Your task to perform on an android device: change the clock display to analog Image 0: 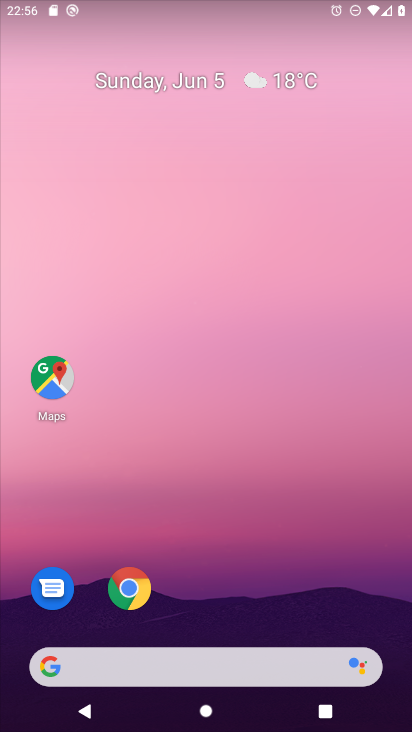
Step 0: drag from (366, 610) to (347, 73)
Your task to perform on an android device: change the clock display to analog Image 1: 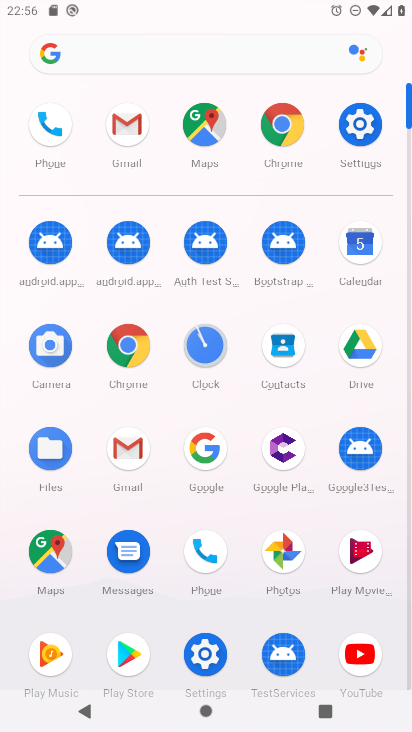
Step 1: click (210, 355)
Your task to perform on an android device: change the clock display to analog Image 2: 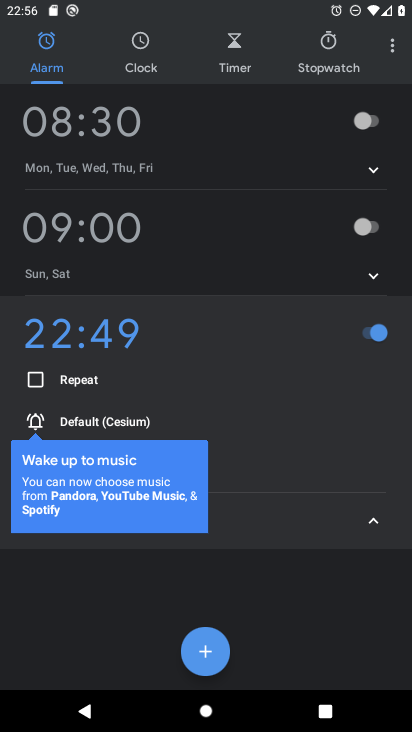
Step 2: click (391, 58)
Your task to perform on an android device: change the clock display to analog Image 3: 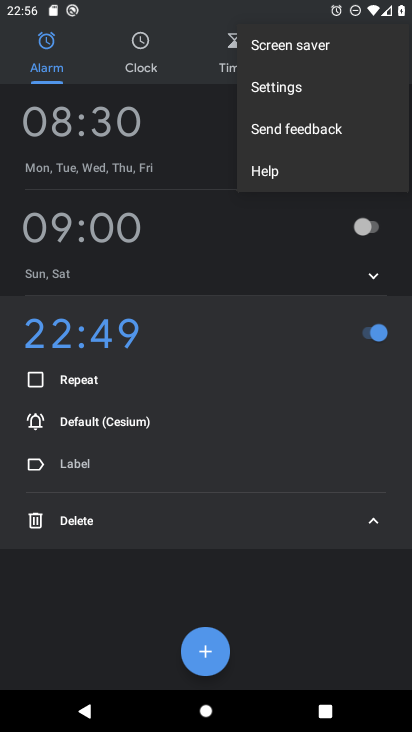
Step 3: click (291, 89)
Your task to perform on an android device: change the clock display to analog Image 4: 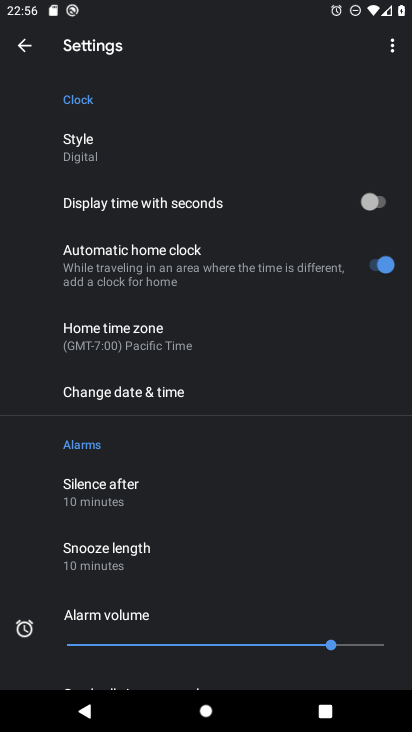
Step 4: drag from (254, 551) to (260, 369)
Your task to perform on an android device: change the clock display to analog Image 5: 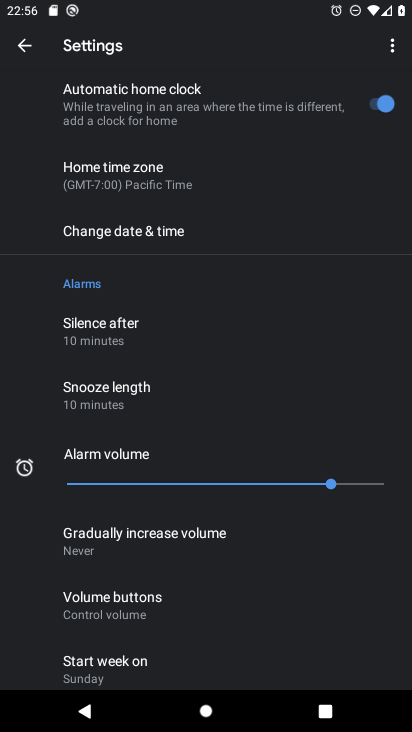
Step 5: drag from (304, 365) to (309, 201)
Your task to perform on an android device: change the clock display to analog Image 6: 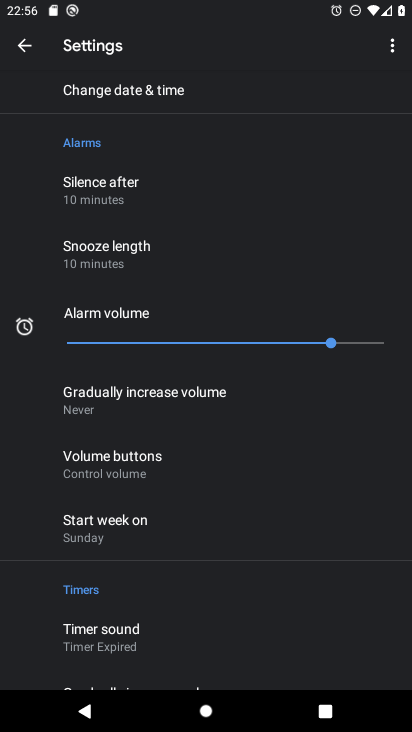
Step 6: drag from (301, 458) to (300, 309)
Your task to perform on an android device: change the clock display to analog Image 7: 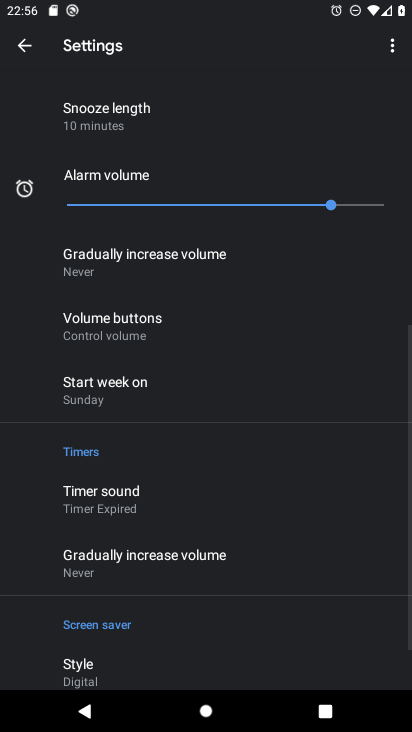
Step 7: drag from (309, 488) to (312, 311)
Your task to perform on an android device: change the clock display to analog Image 8: 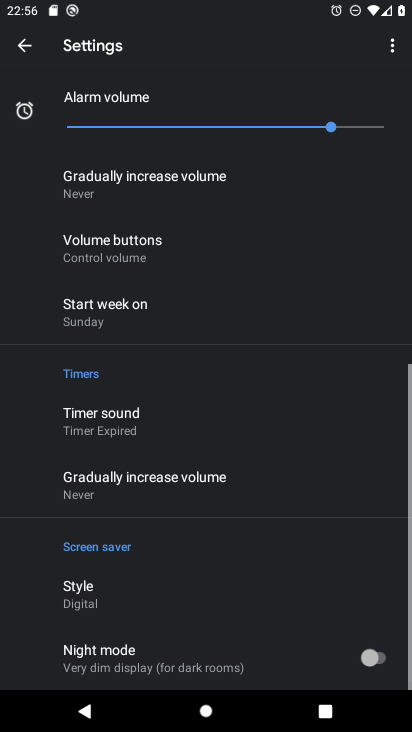
Step 8: drag from (324, 228) to (315, 364)
Your task to perform on an android device: change the clock display to analog Image 9: 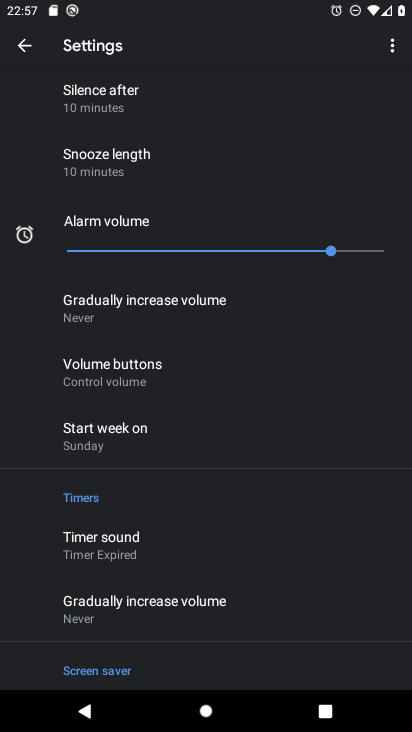
Step 9: drag from (317, 179) to (302, 304)
Your task to perform on an android device: change the clock display to analog Image 10: 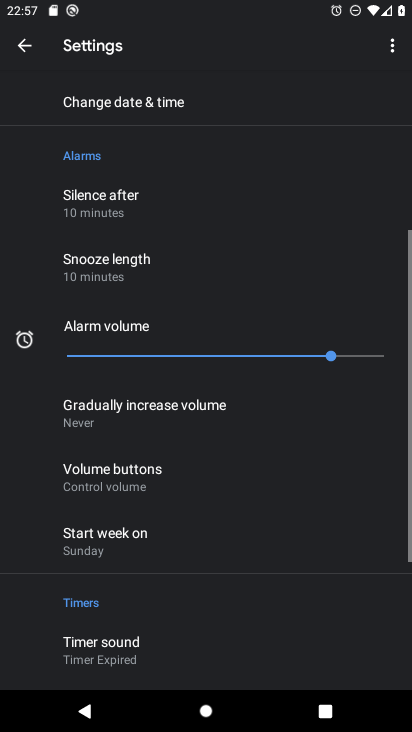
Step 10: drag from (293, 143) to (291, 258)
Your task to perform on an android device: change the clock display to analog Image 11: 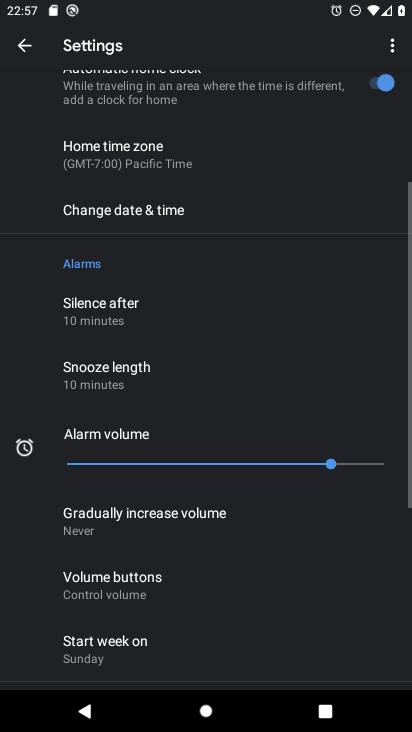
Step 11: drag from (302, 154) to (295, 277)
Your task to perform on an android device: change the clock display to analog Image 12: 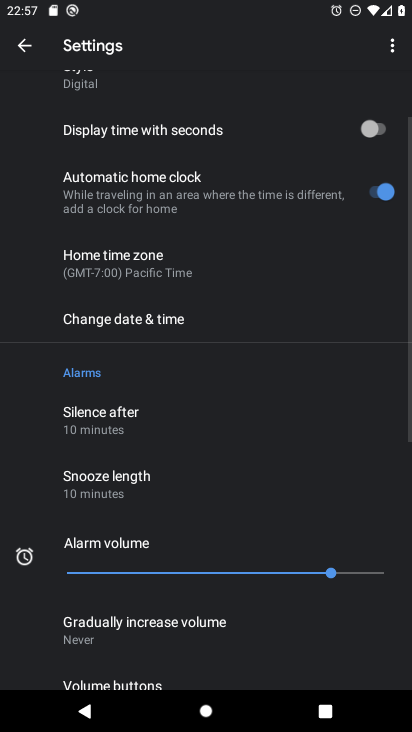
Step 12: drag from (292, 148) to (287, 263)
Your task to perform on an android device: change the clock display to analog Image 13: 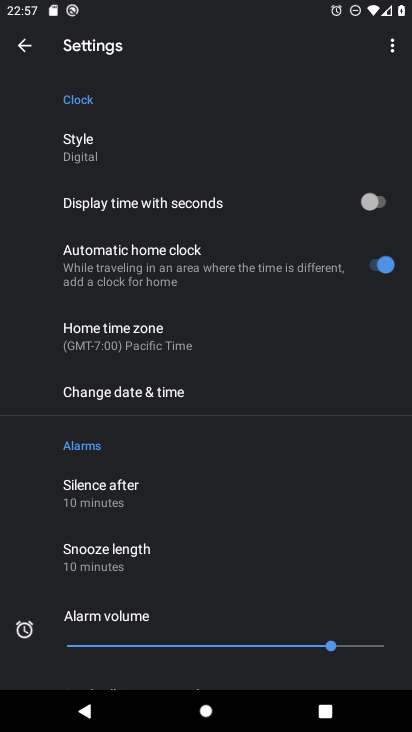
Step 13: drag from (292, 173) to (292, 282)
Your task to perform on an android device: change the clock display to analog Image 14: 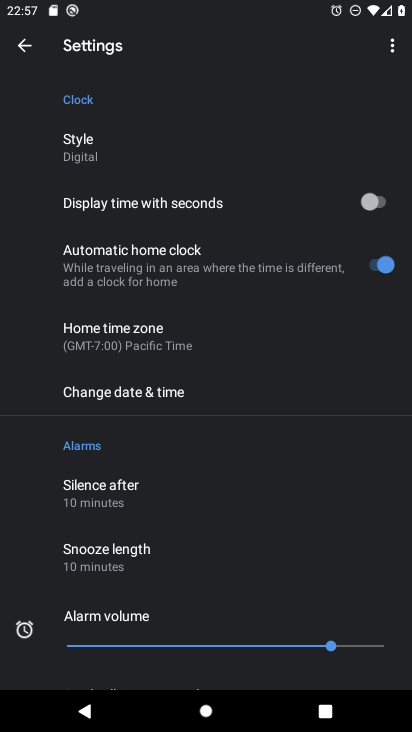
Step 14: click (108, 149)
Your task to perform on an android device: change the clock display to analog Image 15: 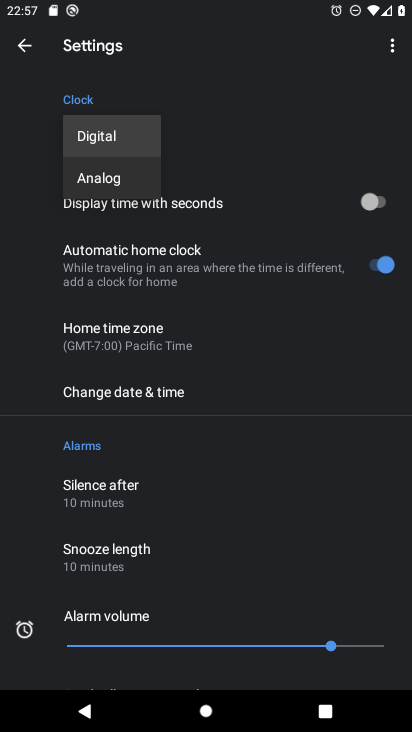
Step 15: click (120, 175)
Your task to perform on an android device: change the clock display to analog Image 16: 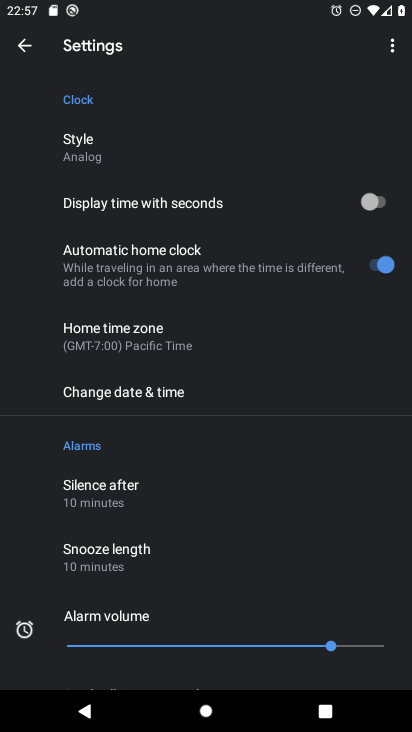
Step 16: task complete